Your task to perform on an android device: What is the speed of a rocket? Image 0: 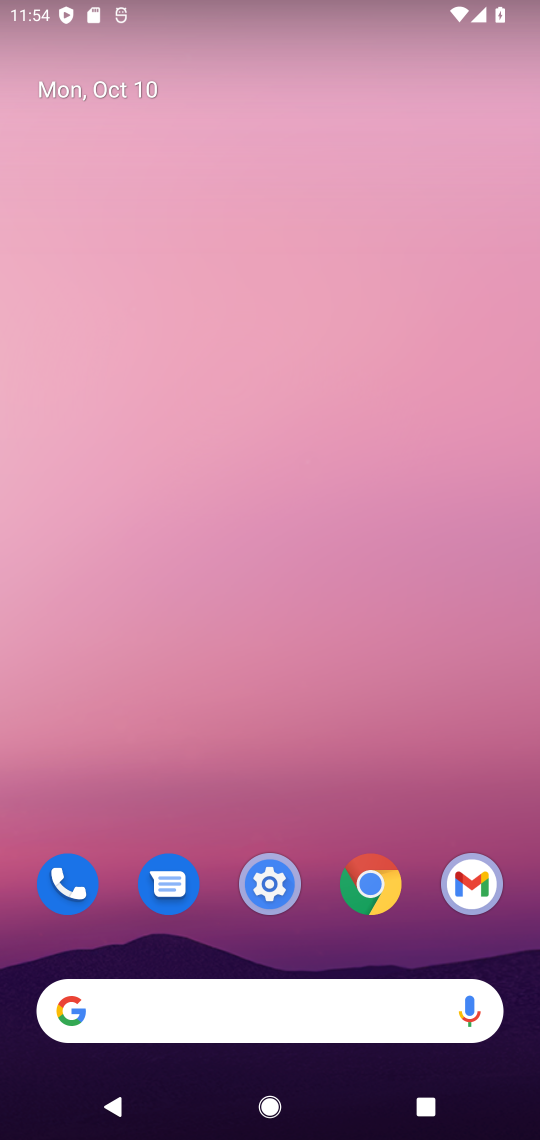
Step 0: click (399, 880)
Your task to perform on an android device: What is the speed of a rocket? Image 1: 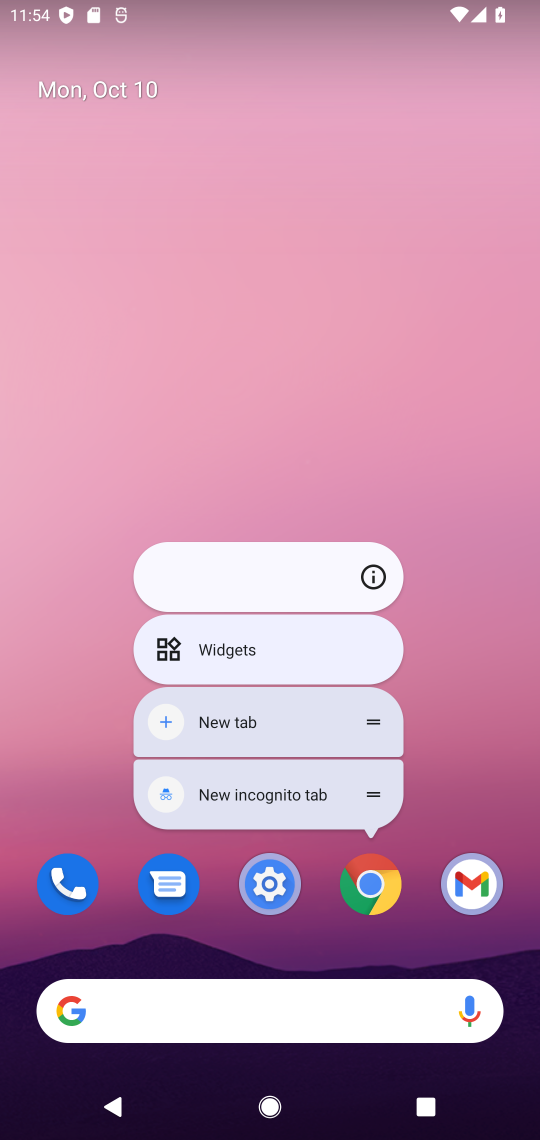
Step 1: click (382, 886)
Your task to perform on an android device: What is the speed of a rocket? Image 2: 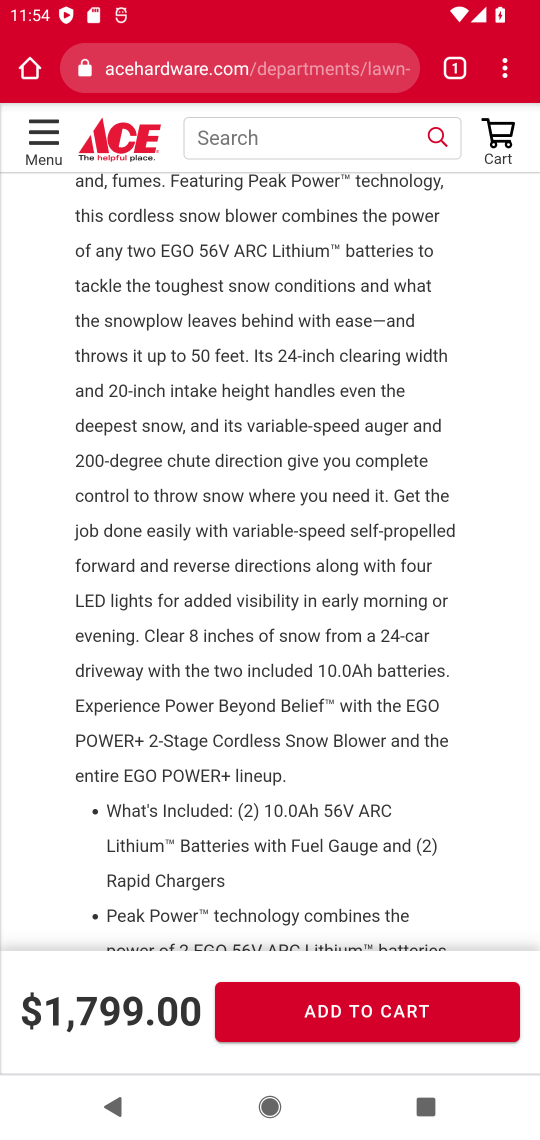
Step 2: click (297, 68)
Your task to perform on an android device: What is the speed of a rocket? Image 3: 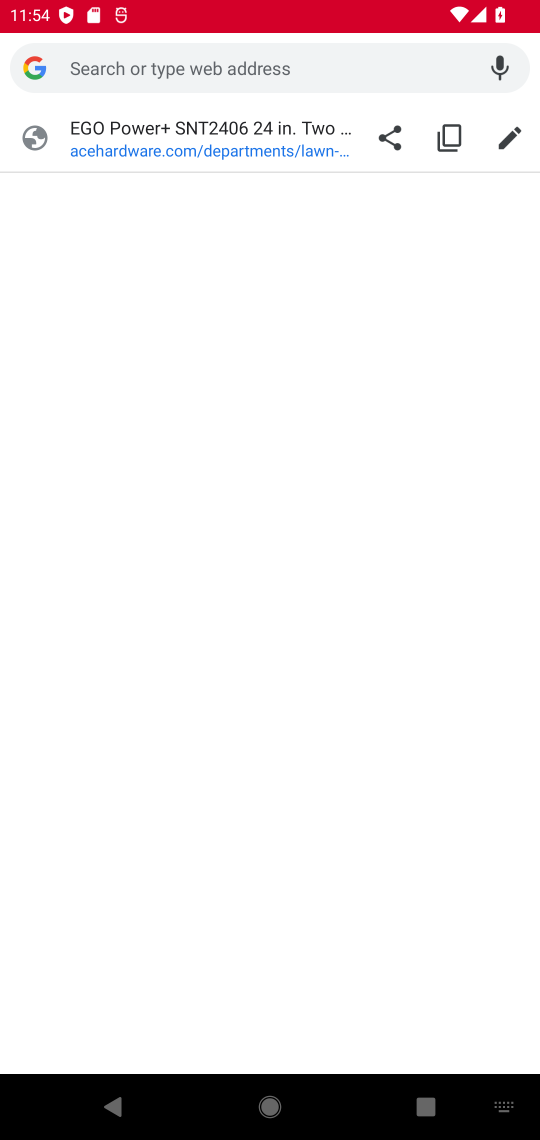
Step 3: type "speed of the rocket"
Your task to perform on an android device: What is the speed of a rocket? Image 4: 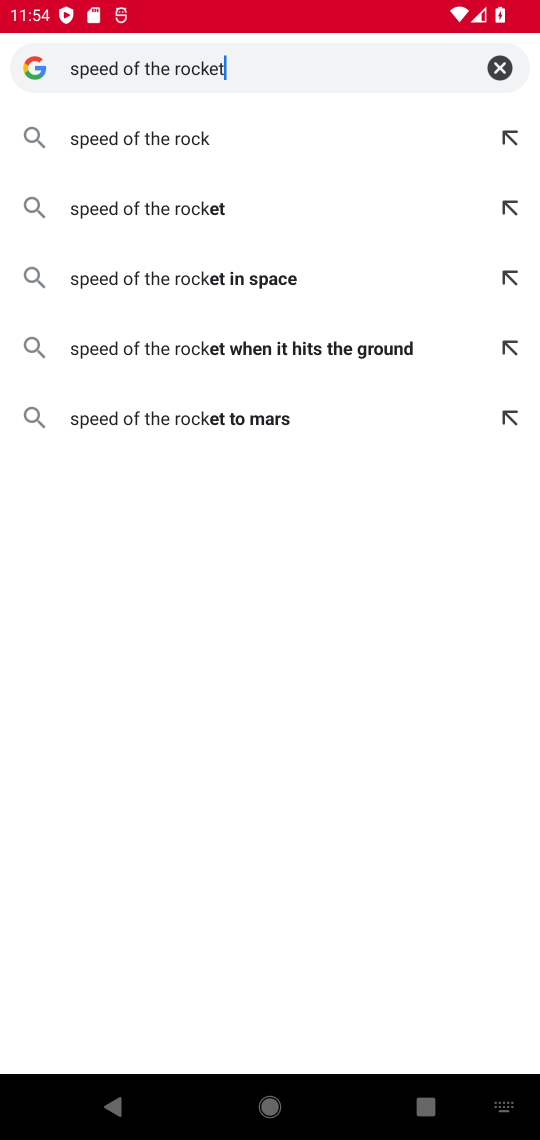
Step 4: type ""
Your task to perform on an android device: What is the speed of a rocket? Image 5: 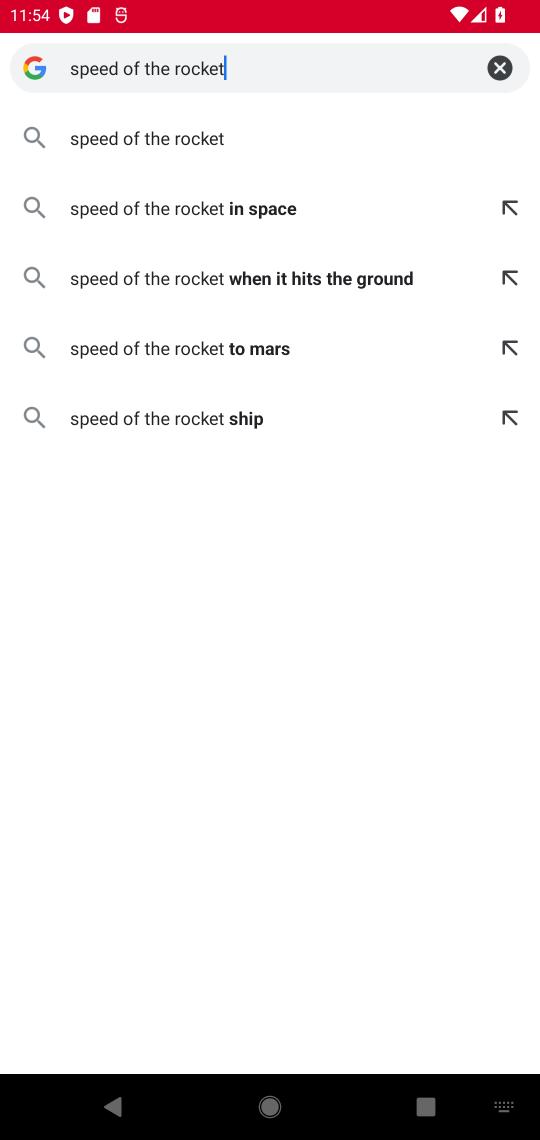
Step 5: press enter
Your task to perform on an android device: What is the speed of a rocket? Image 6: 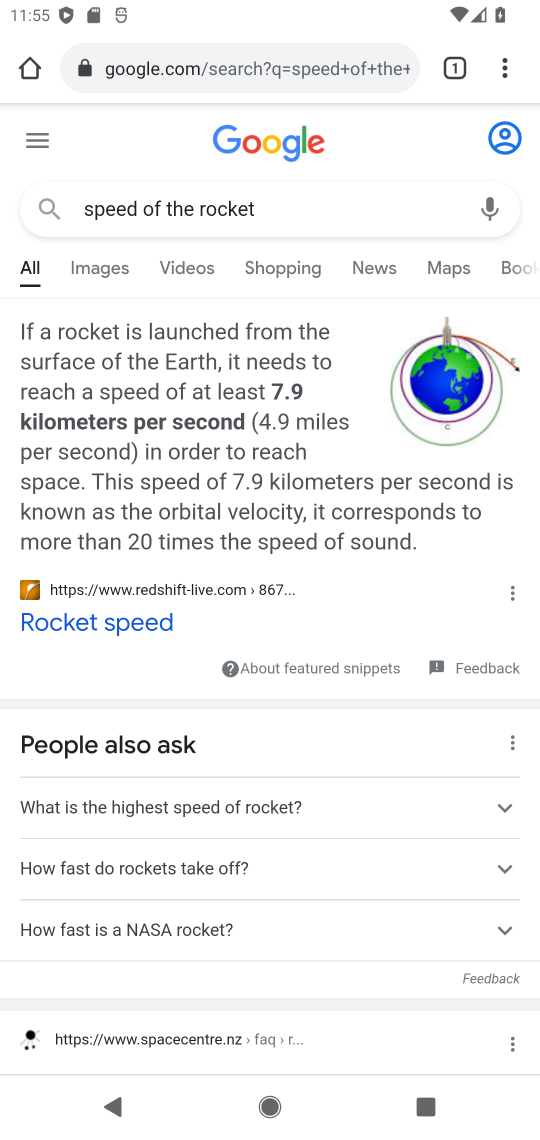
Step 6: task complete